Your task to perform on an android device: change timer sound Image 0: 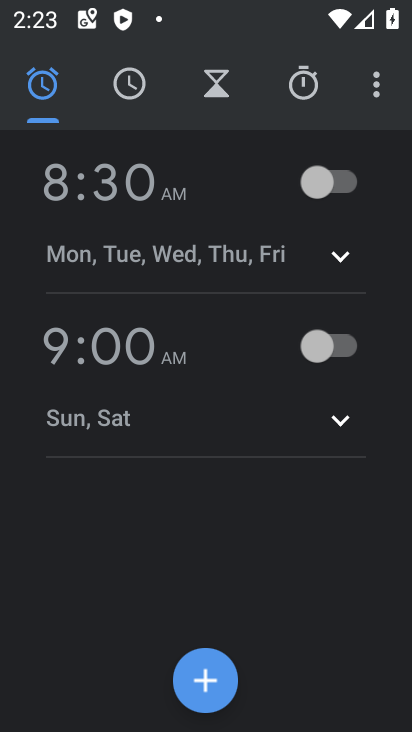
Step 0: click (377, 96)
Your task to perform on an android device: change timer sound Image 1: 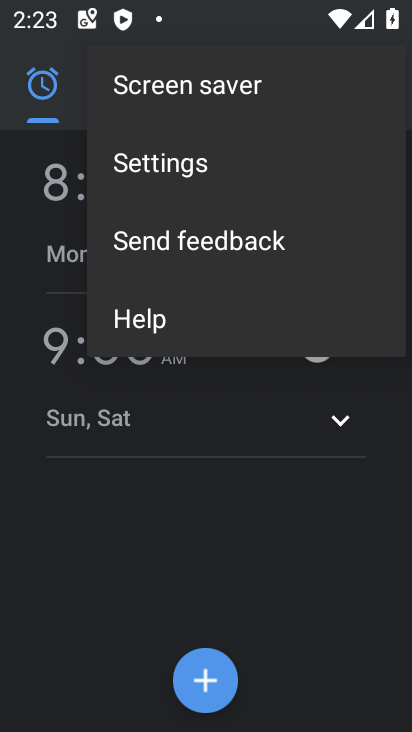
Step 1: click (160, 166)
Your task to perform on an android device: change timer sound Image 2: 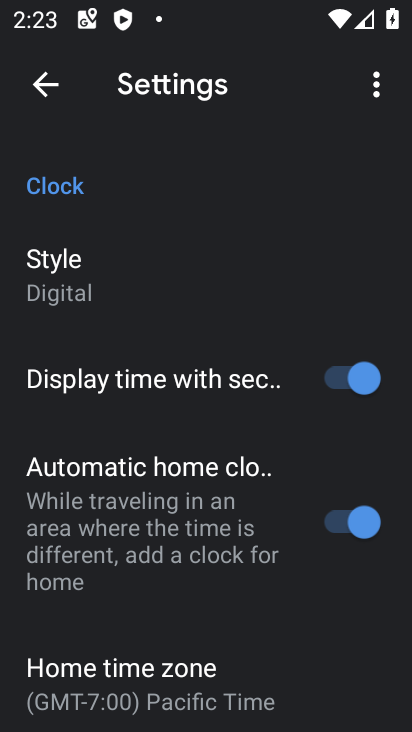
Step 2: drag from (126, 679) to (129, 189)
Your task to perform on an android device: change timer sound Image 3: 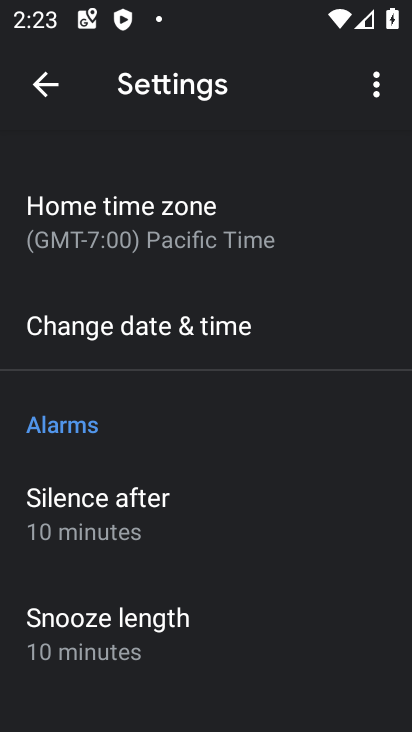
Step 3: drag from (141, 636) to (154, 267)
Your task to perform on an android device: change timer sound Image 4: 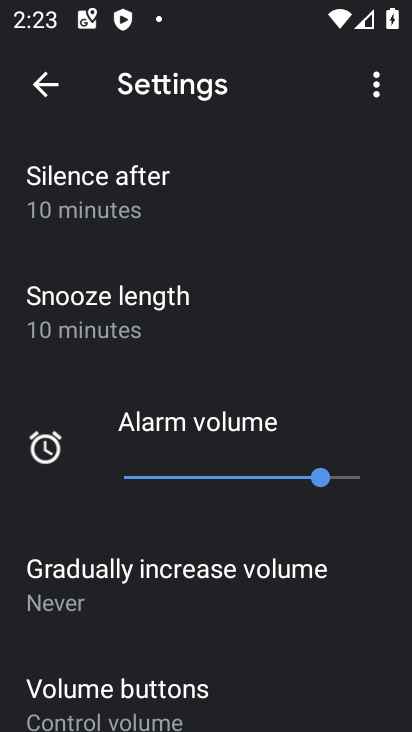
Step 4: drag from (159, 638) to (168, 226)
Your task to perform on an android device: change timer sound Image 5: 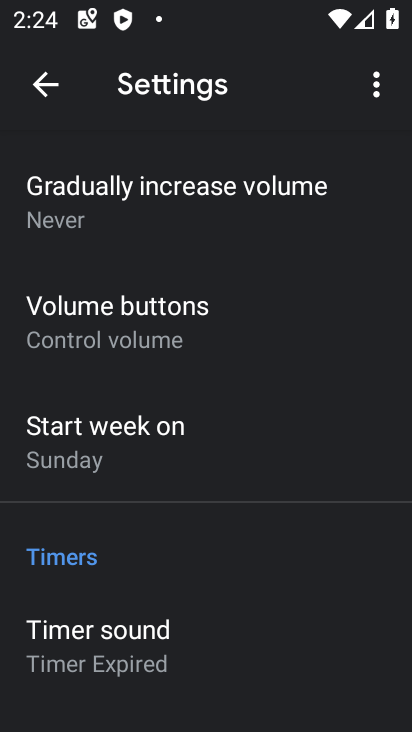
Step 5: drag from (161, 599) to (164, 312)
Your task to perform on an android device: change timer sound Image 6: 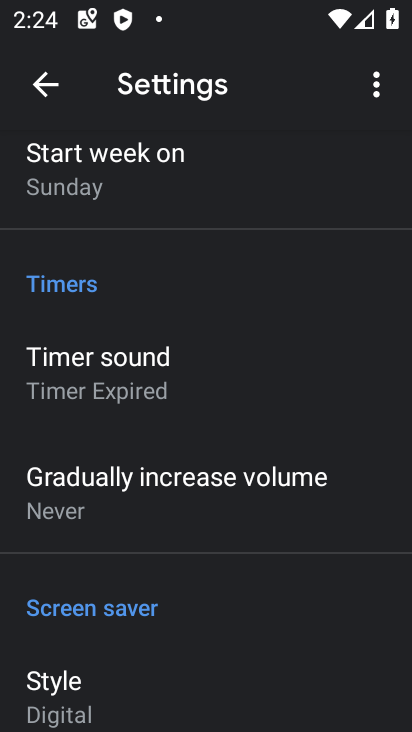
Step 6: click (118, 375)
Your task to perform on an android device: change timer sound Image 7: 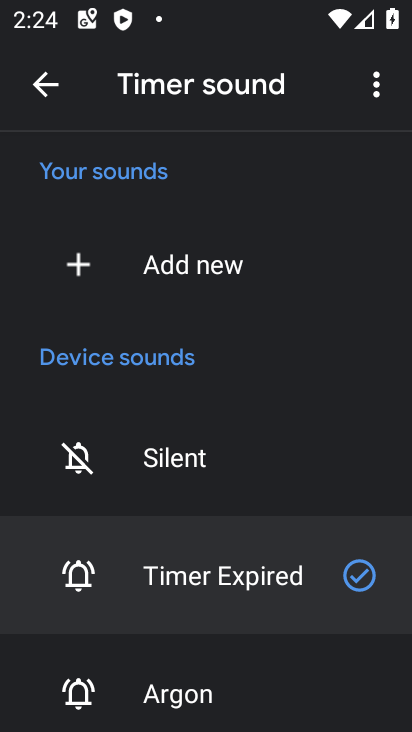
Step 7: drag from (228, 698) to (229, 285)
Your task to perform on an android device: change timer sound Image 8: 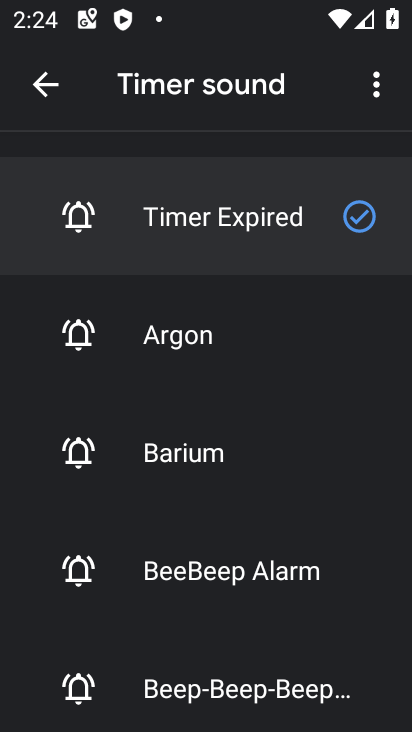
Step 8: click (81, 573)
Your task to perform on an android device: change timer sound Image 9: 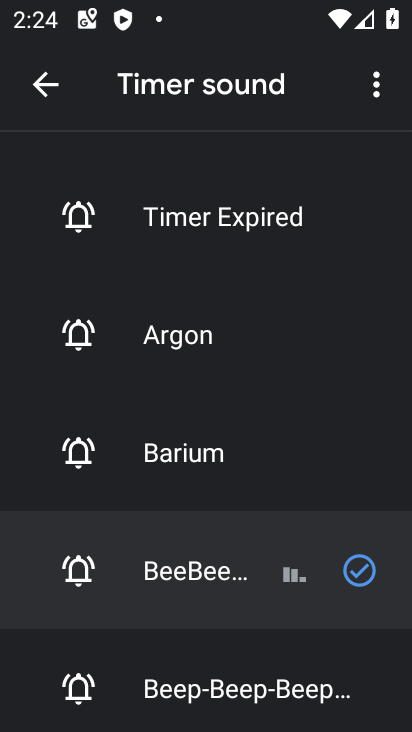
Step 9: task complete